Your task to perform on an android device: Open Youtube and go to "Your channel" Image 0: 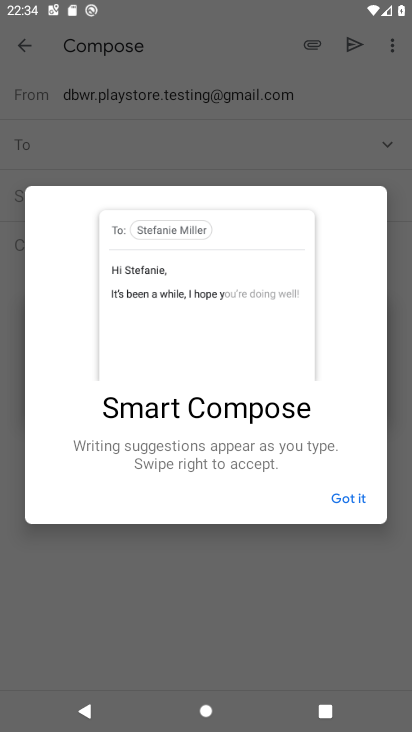
Step 0: press home button
Your task to perform on an android device: Open Youtube and go to "Your channel" Image 1: 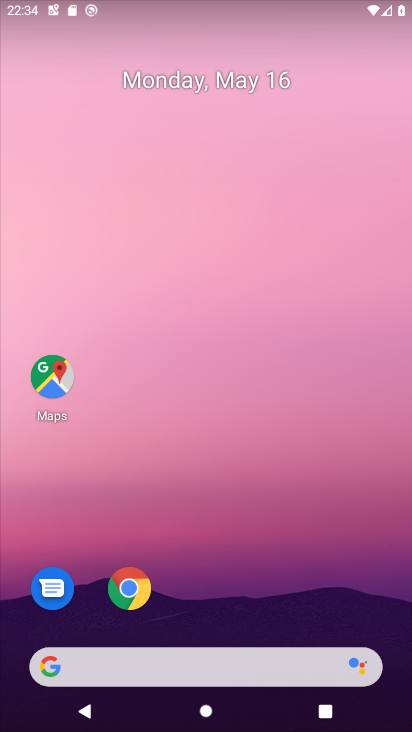
Step 1: drag from (219, 629) to (289, 55)
Your task to perform on an android device: Open Youtube and go to "Your channel" Image 2: 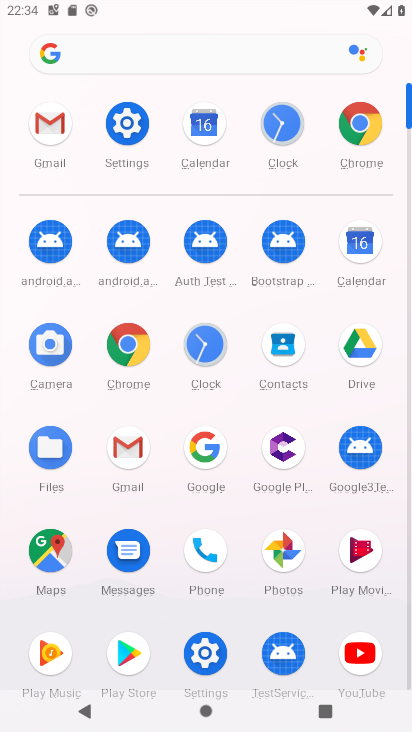
Step 2: click (360, 647)
Your task to perform on an android device: Open Youtube and go to "Your channel" Image 3: 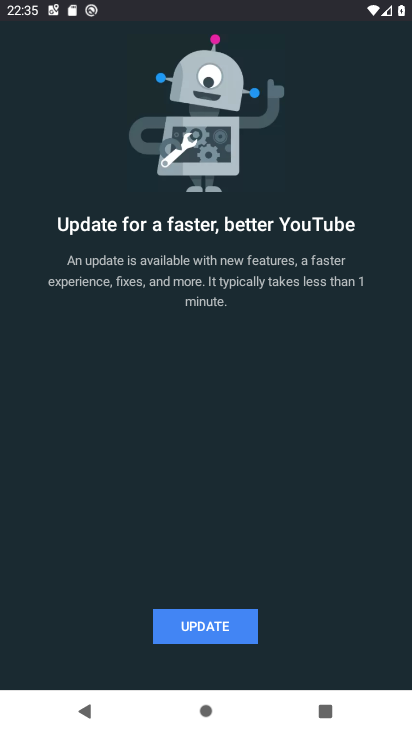
Step 3: click (200, 619)
Your task to perform on an android device: Open Youtube and go to "Your channel" Image 4: 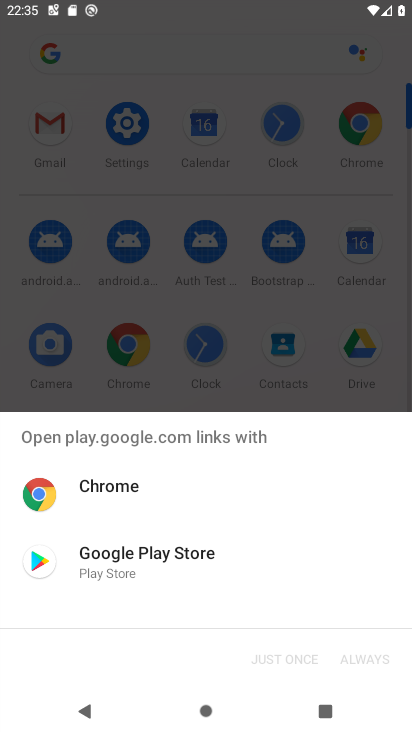
Step 4: click (110, 557)
Your task to perform on an android device: Open Youtube and go to "Your channel" Image 5: 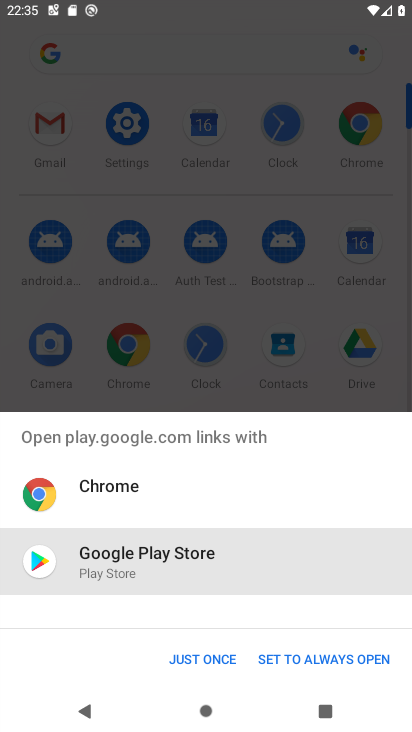
Step 5: click (199, 658)
Your task to perform on an android device: Open Youtube and go to "Your channel" Image 6: 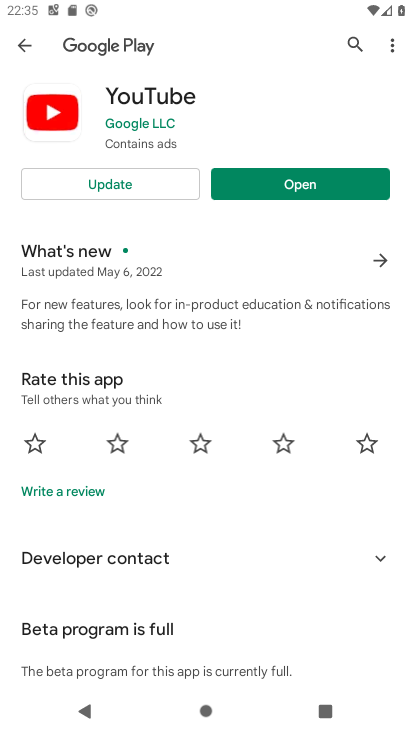
Step 6: click (117, 180)
Your task to perform on an android device: Open Youtube and go to "Your channel" Image 7: 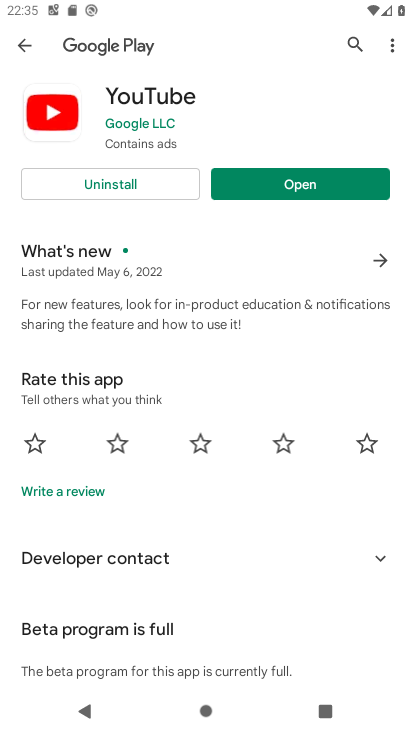
Step 7: click (301, 186)
Your task to perform on an android device: Open Youtube and go to "Your channel" Image 8: 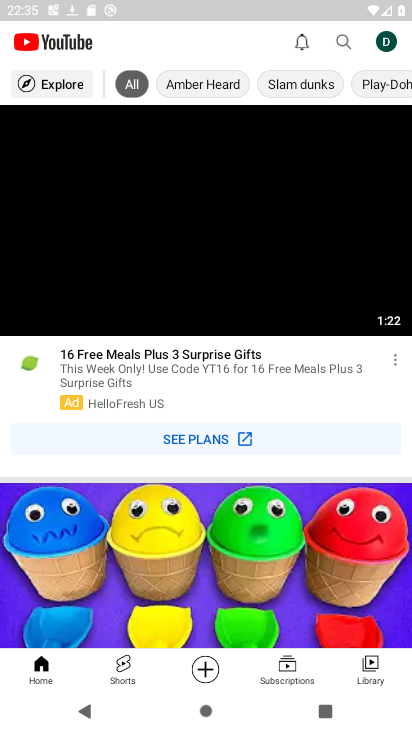
Step 8: click (385, 39)
Your task to perform on an android device: Open Youtube and go to "Your channel" Image 9: 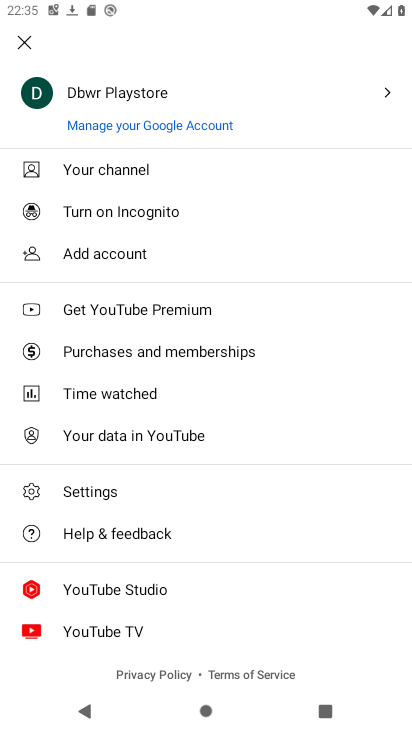
Step 9: click (159, 164)
Your task to perform on an android device: Open Youtube and go to "Your channel" Image 10: 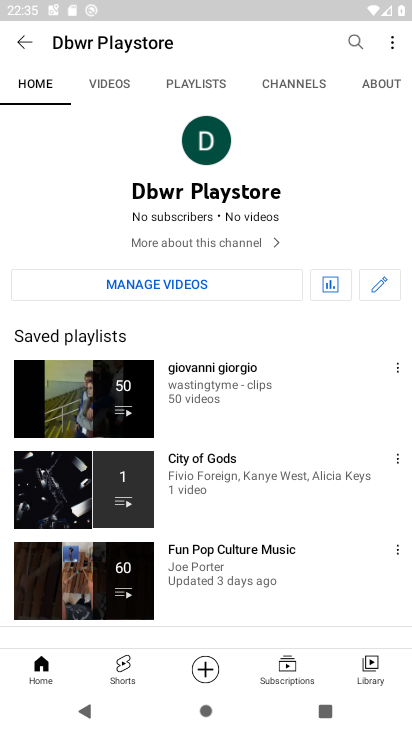
Step 10: task complete